Your task to perform on an android device: empty trash in the gmail app Image 0: 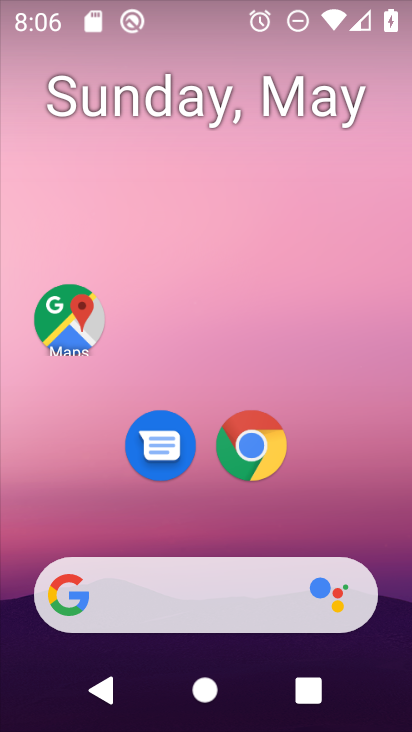
Step 0: drag from (251, 672) to (226, 261)
Your task to perform on an android device: empty trash in the gmail app Image 1: 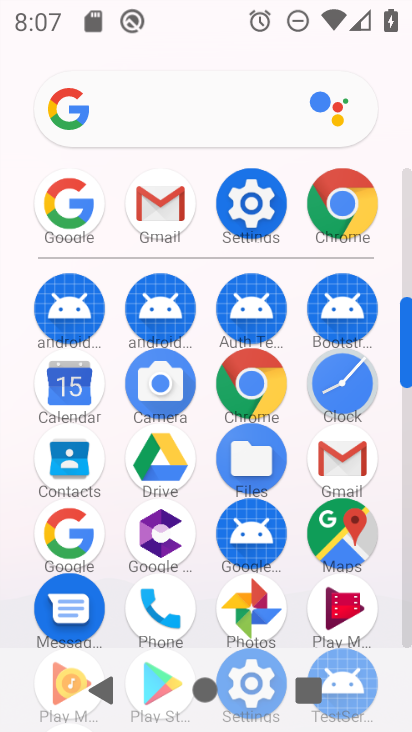
Step 1: click (364, 470)
Your task to perform on an android device: empty trash in the gmail app Image 2: 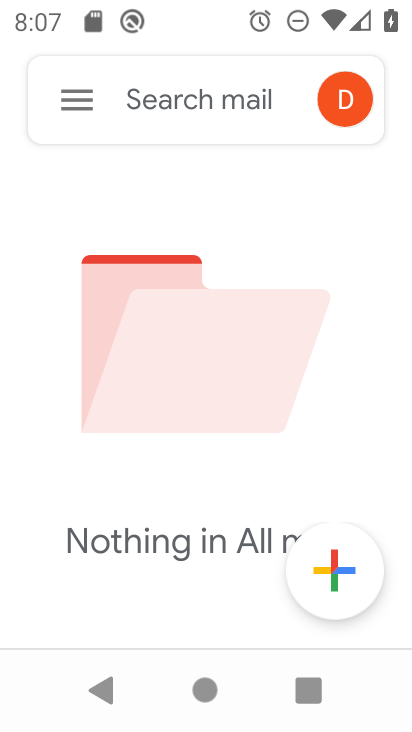
Step 2: click (76, 107)
Your task to perform on an android device: empty trash in the gmail app Image 3: 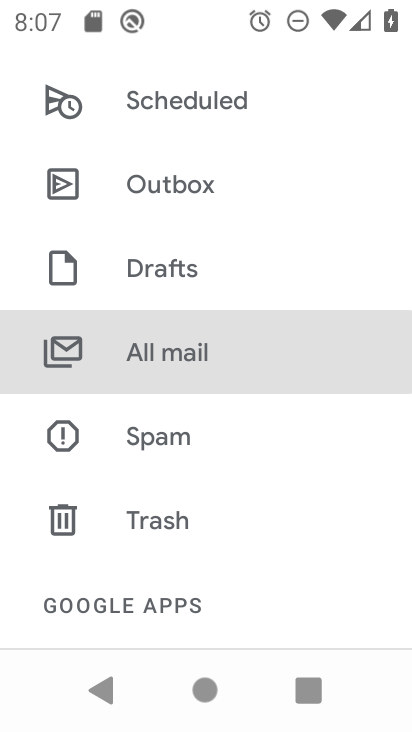
Step 3: drag from (183, 461) to (273, 2)
Your task to perform on an android device: empty trash in the gmail app Image 4: 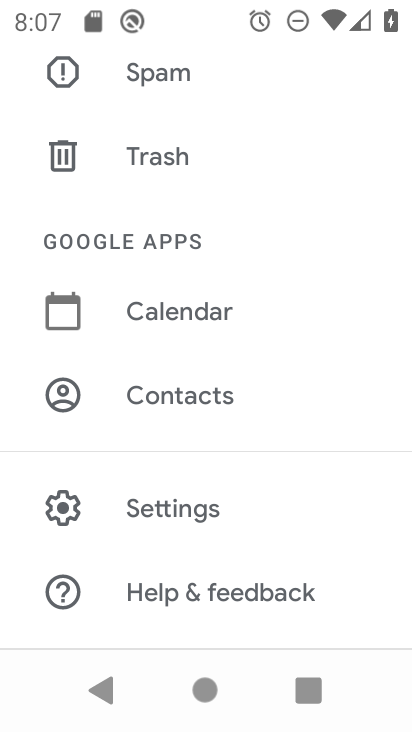
Step 4: click (174, 153)
Your task to perform on an android device: empty trash in the gmail app Image 5: 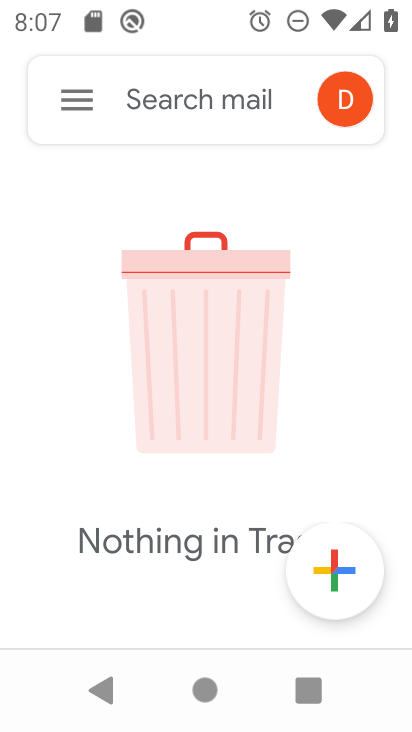
Step 5: task complete